Your task to perform on an android device: open a new tab in the chrome app Image 0: 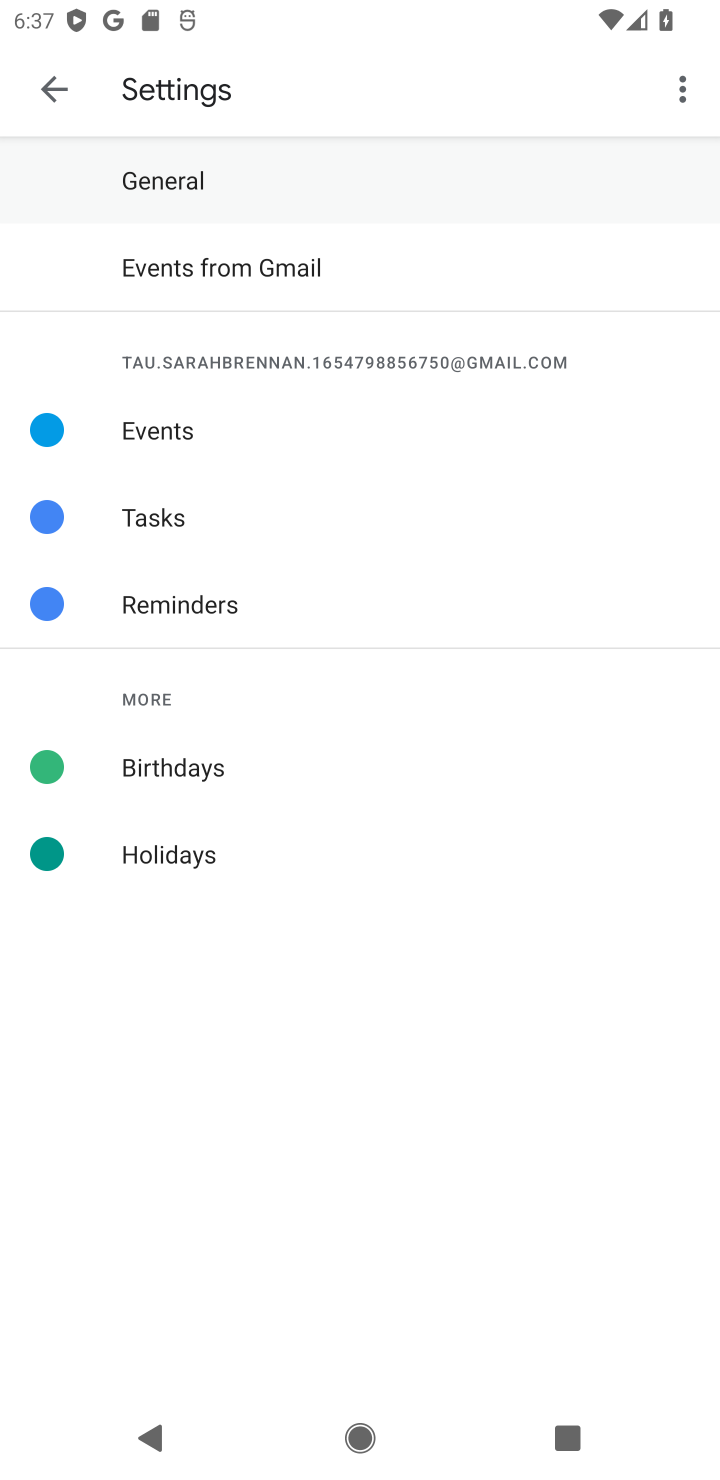
Step 0: task complete